Your task to perform on an android device: clear all cookies in the chrome app Image 0: 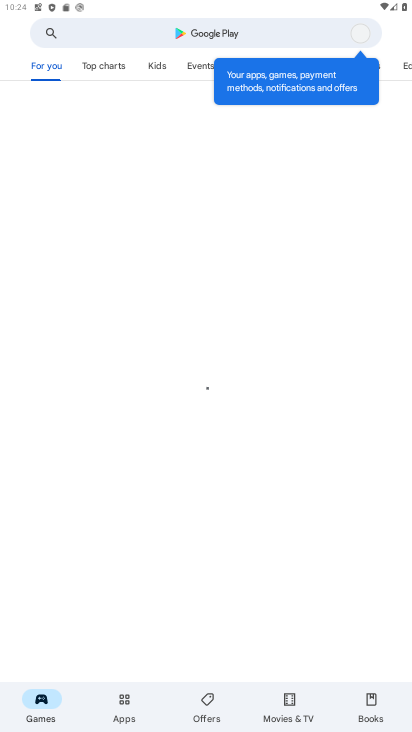
Step 0: press home button
Your task to perform on an android device: clear all cookies in the chrome app Image 1: 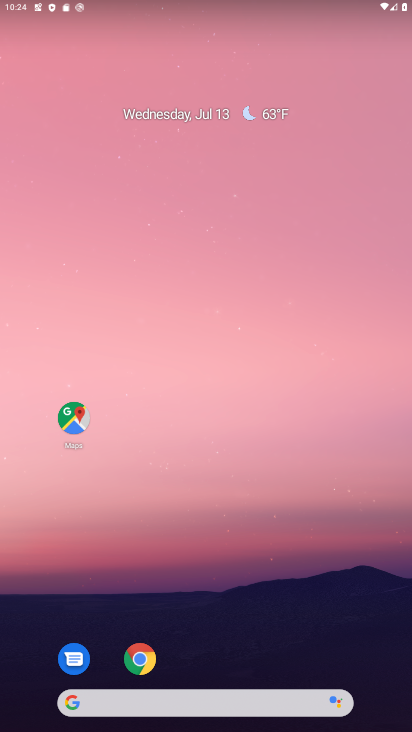
Step 1: drag from (302, 634) to (251, 123)
Your task to perform on an android device: clear all cookies in the chrome app Image 2: 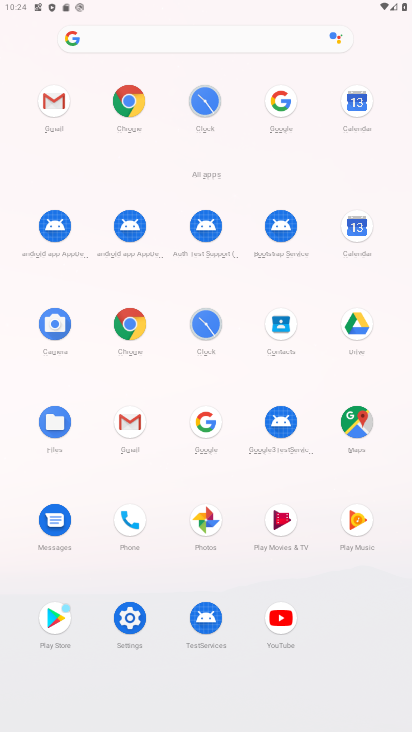
Step 2: click (121, 327)
Your task to perform on an android device: clear all cookies in the chrome app Image 3: 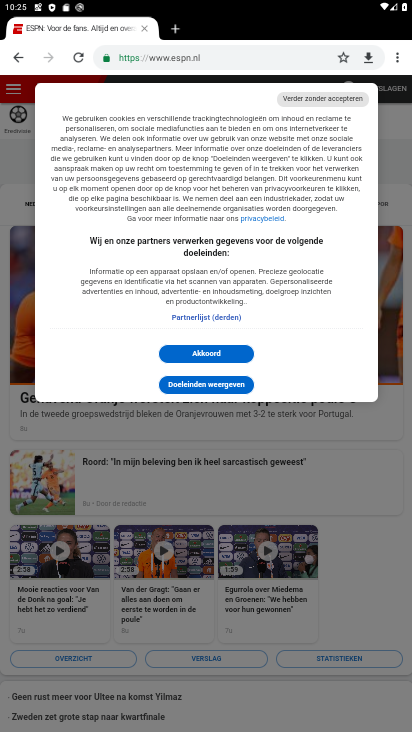
Step 3: drag from (396, 48) to (294, 177)
Your task to perform on an android device: clear all cookies in the chrome app Image 4: 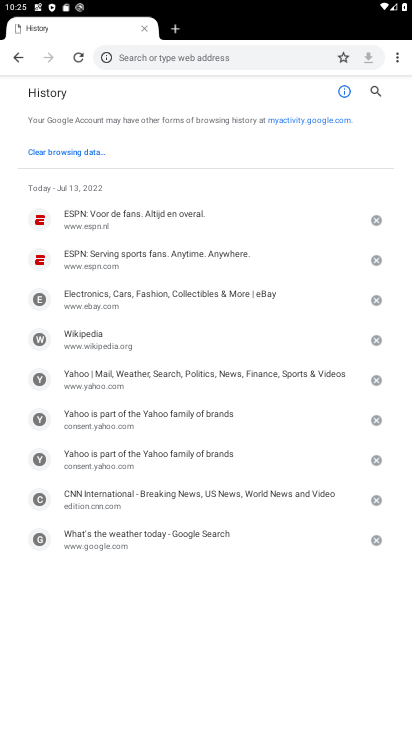
Step 4: click (34, 152)
Your task to perform on an android device: clear all cookies in the chrome app Image 5: 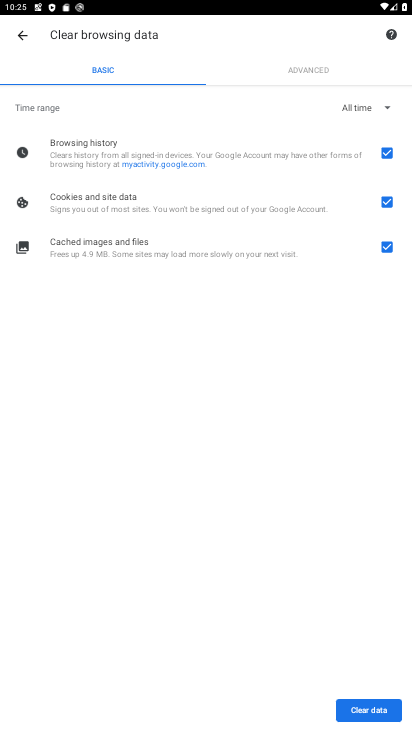
Step 5: click (390, 710)
Your task to perform on an android device: clear all cookies in the chrome app Image 6: 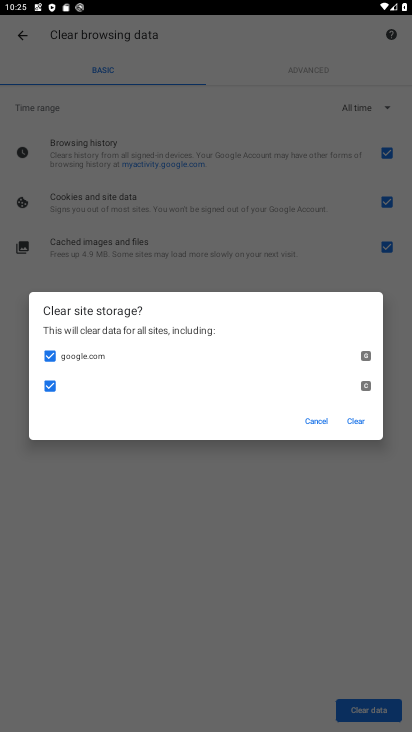
Step 6: click (361, 417)
Your task to perform on an android device: clear all cookies in the chrome app Image 7: 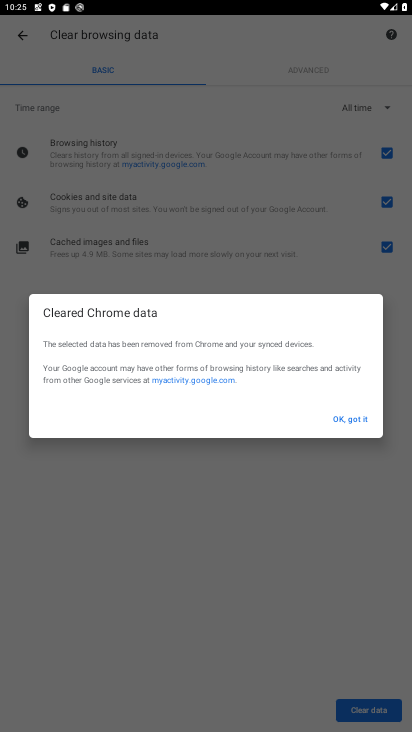
Step 7: task complete